Your task to perform on an android device: Clear all items from cart on walmart.com. Add apple airpods pro to the cart on walmart.com, then select checkout. Image 0: 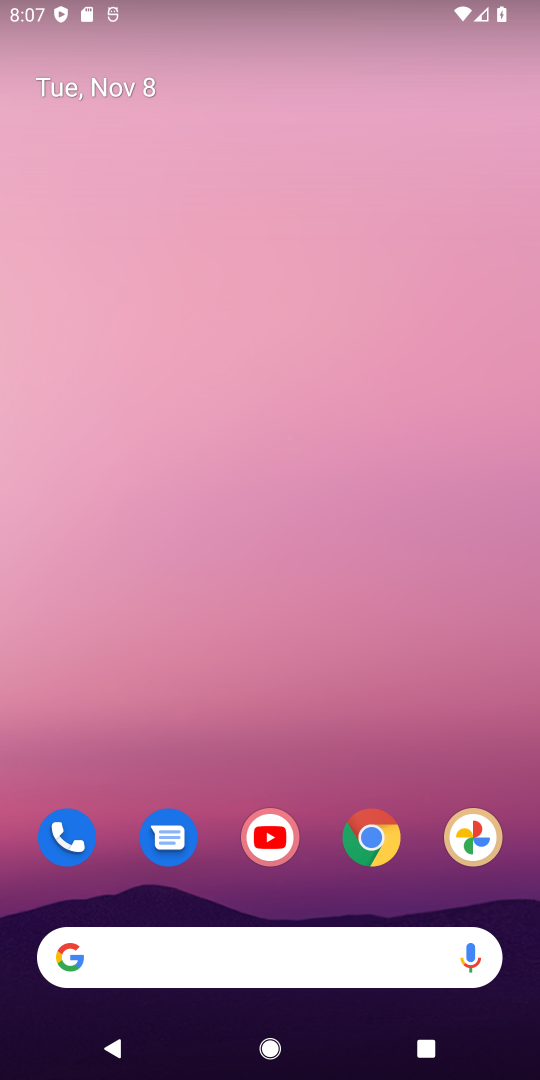
Step 0: click (381, 834)
Your task to perform on an android device: Clear all items from cart on walmart.com. Add apple airpods pro to the cart on walmart.com, then select checkout. Image 1: 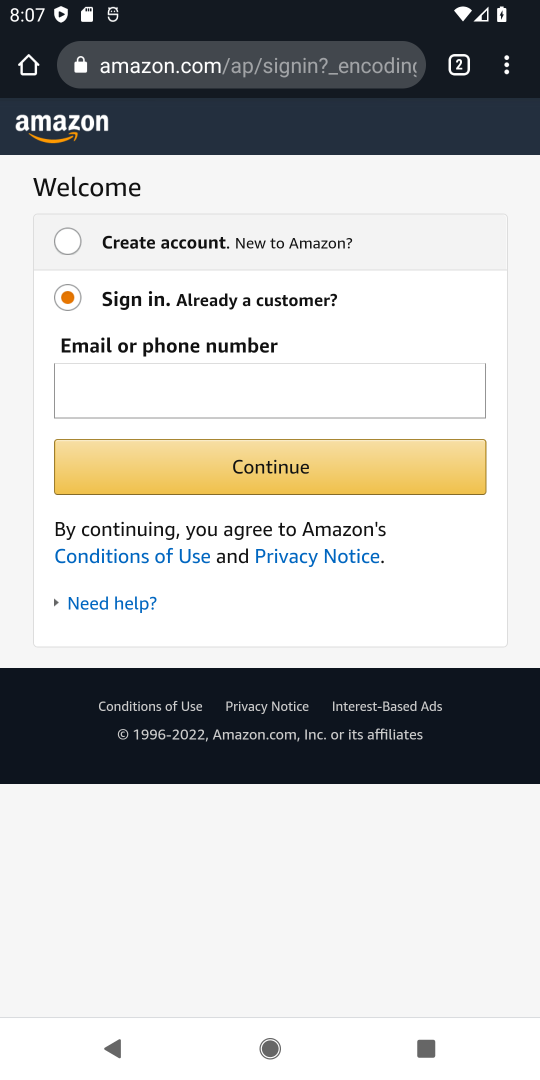
Step 1: click (463, 67)
Your task to perform on an android device: Clear all items from cart on walmart.com. Add apple airpods pro to the cart on walmart.com, then select checkout. Image 2: 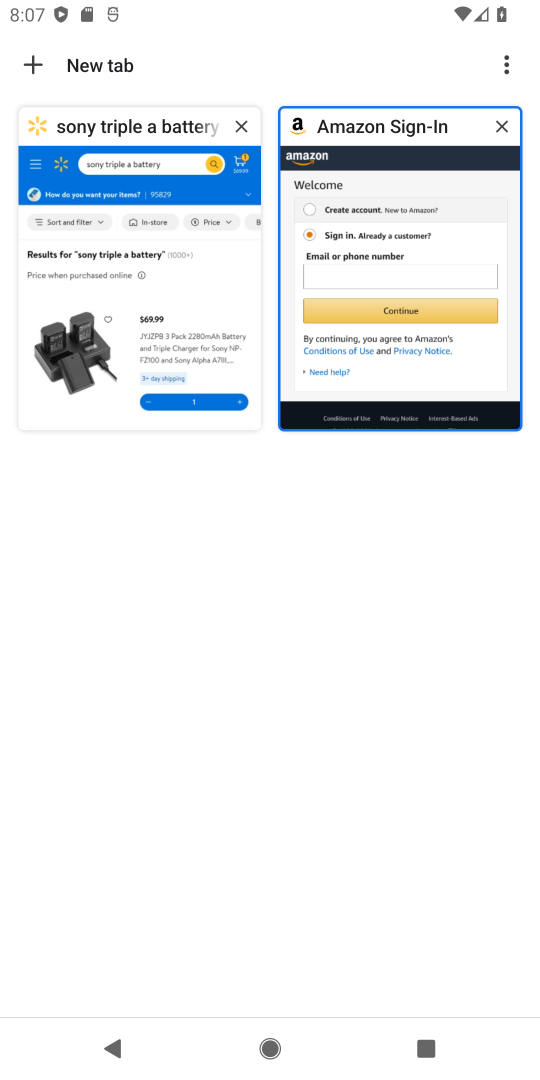
Step 2: click (112, 237)
Your task to perform on an android device: Clear all items from cart on walmart.com. Add apple airpods pro to the cart on walmart.com, then select checkout. Image 3: 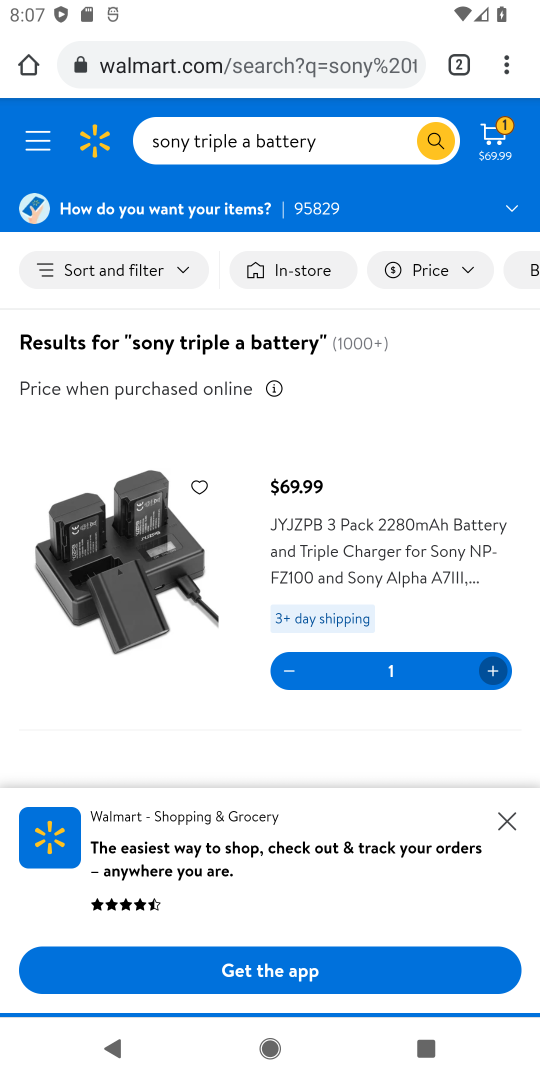
Step 3: click (491, 136)
Your task to perform on an android device: Clear all items from cart on walmart.com. Add apple airpods pro to the cart on walmart.com, then select checkout. Image 4: 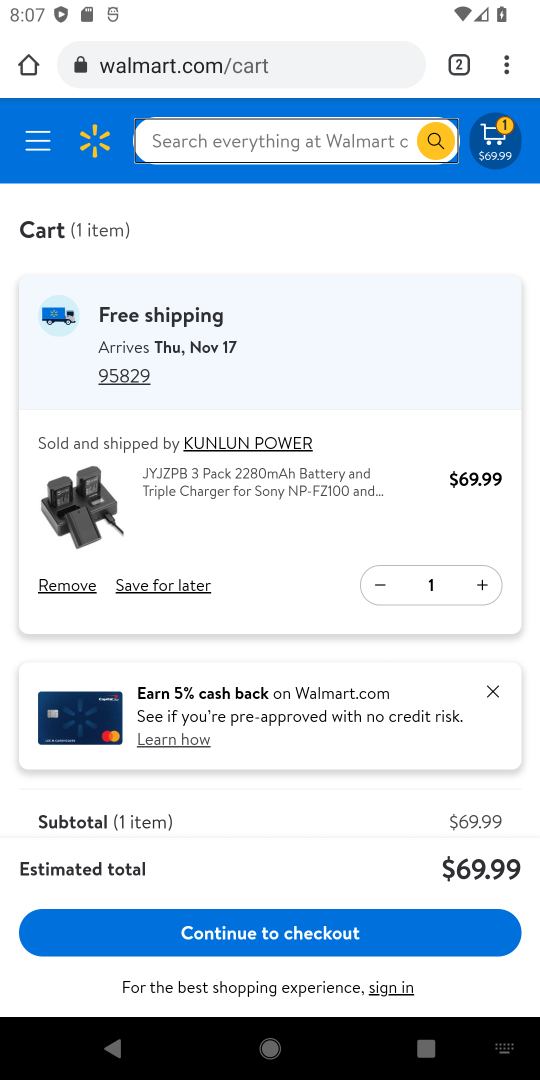
Step 4: click (82, 585)
Your task to perform on an android device: Clear all items from cart on walmart.com. Add apple airpods pro to the cart on walmart.com, then select checkout. Image 5: 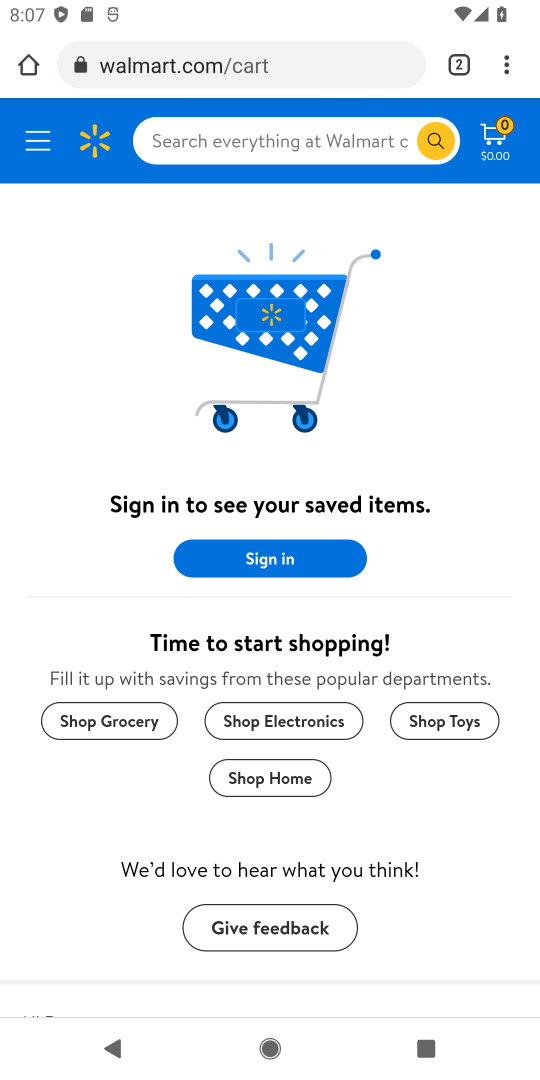
Step 5: click (197, 142)
Your task to perform on an android device: Clear all items from cart on walmart.com. Add apple airpods pro to the cart on walmart.com, then select checkout. Image 6: 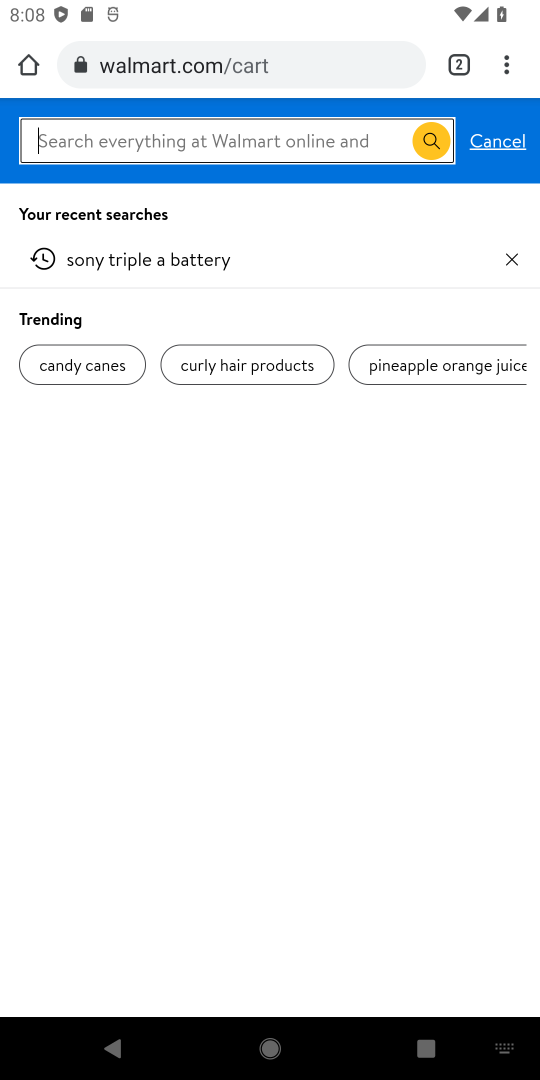
Step 6: type "apple airpods pro"
Your task to perform on an android device: Clear all items from cart on walmart.com. Add apple airpods pro to the cart on walmart.com, then select checkout. Image 7: 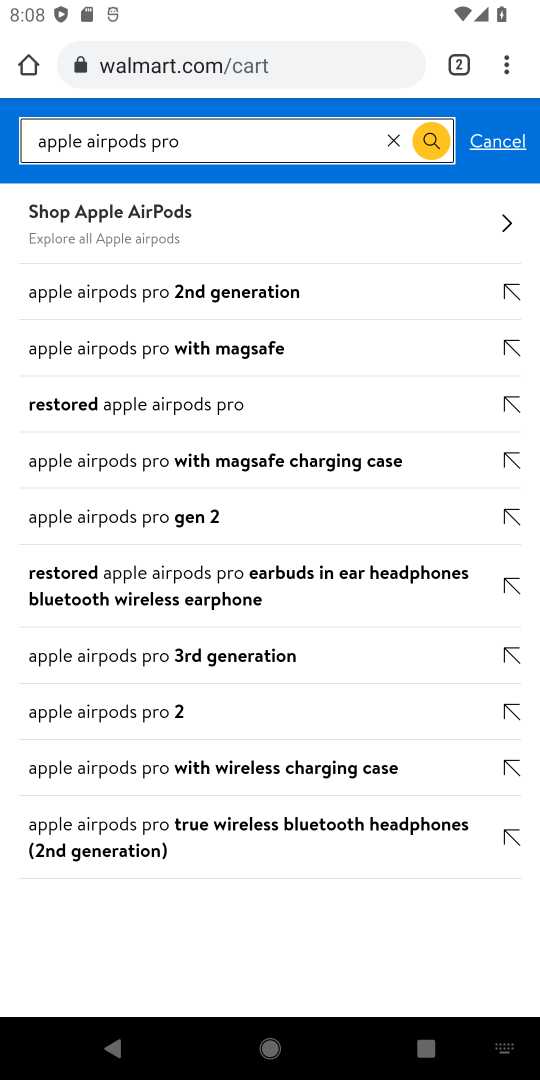
Step 7: click (142, 217)
Your task to perform on an android device: Clear all items from cart on walmart.com. Add apple airpods pro to the cart on walmart.com, then select checkout. Image 8: 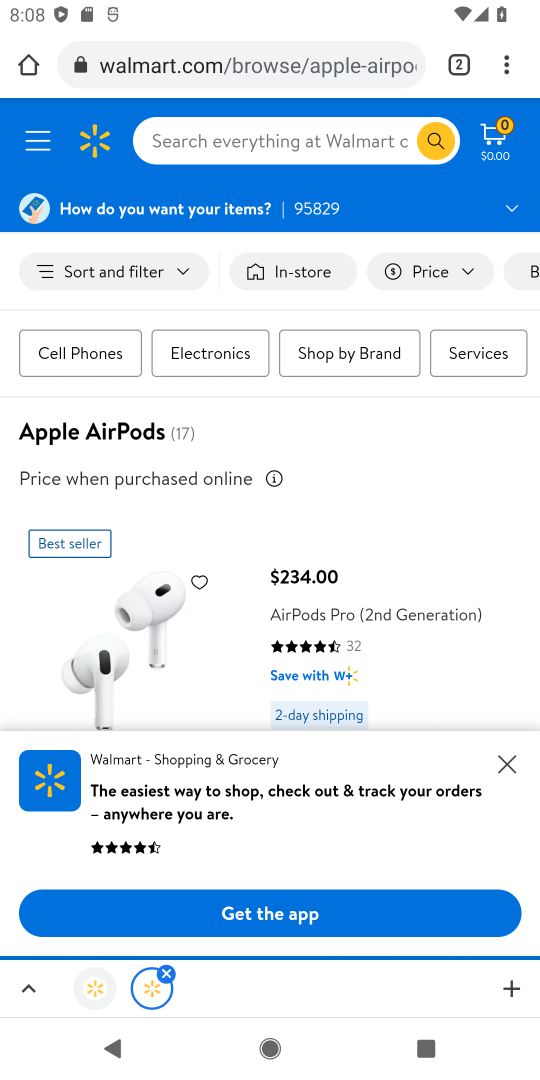
Step 8: click (384, 763)
Your task to perform on an android device: Clear all items from cart on walmart.com. Add apple airpods pro to the cart on walmart.com, then select checkout. Image 9: 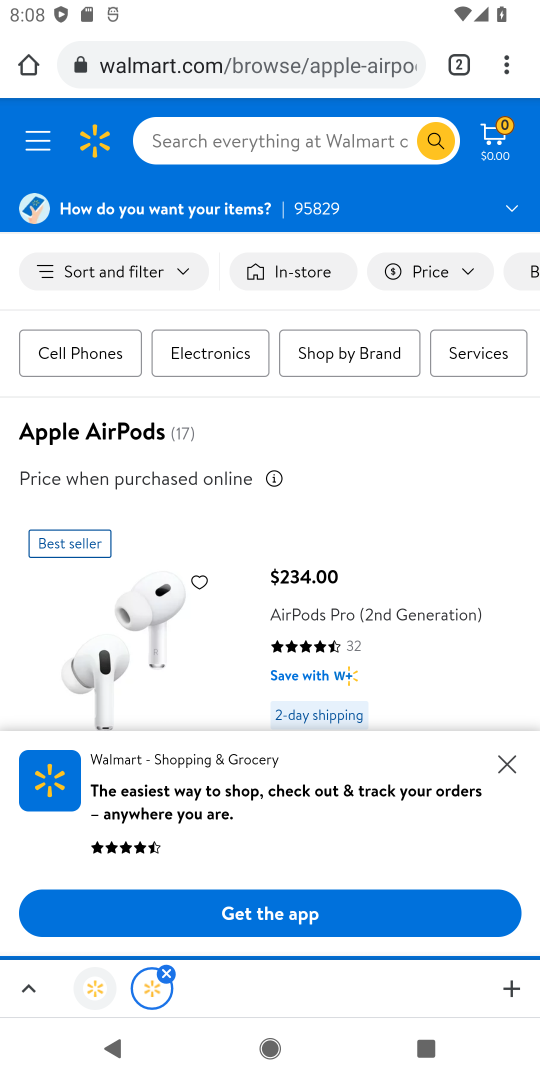
Step 9: click (507, 761)
Your task to perform on an android device: Clear all items from cart on walmart.com. Add apple airpods pro to the cart on walmart.com, then select checkout. Image 10: 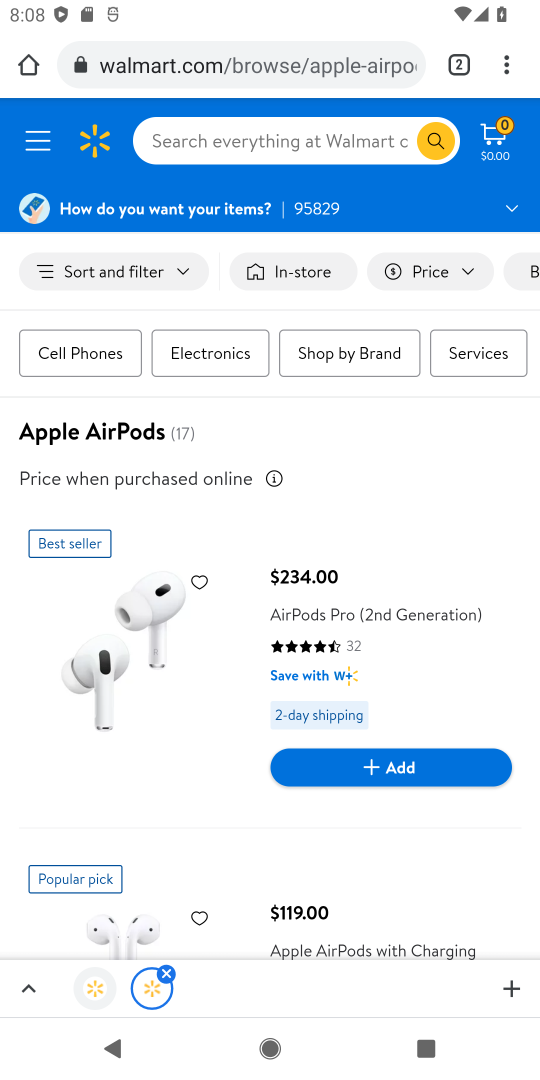
Step 10: click (431, 769)
Your task to perform on an android device: Clear all items from cart on walmart.com. Add apple airpods pro to the cart on walmart.com, then select checkout. Image 11: 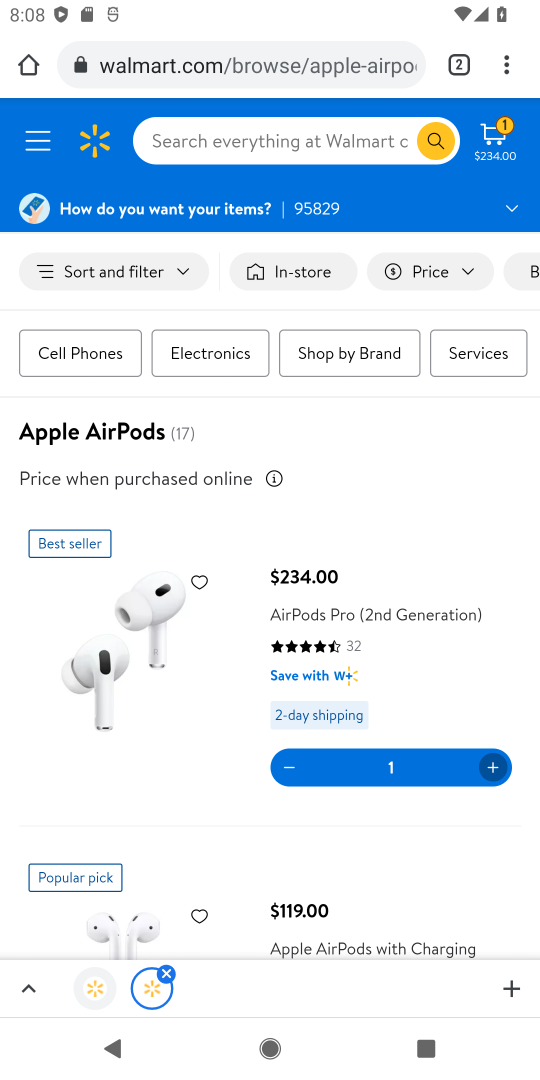
Step 11: task complete